Your task to perform on an android device: What's the time in San Francisco? Image 0: 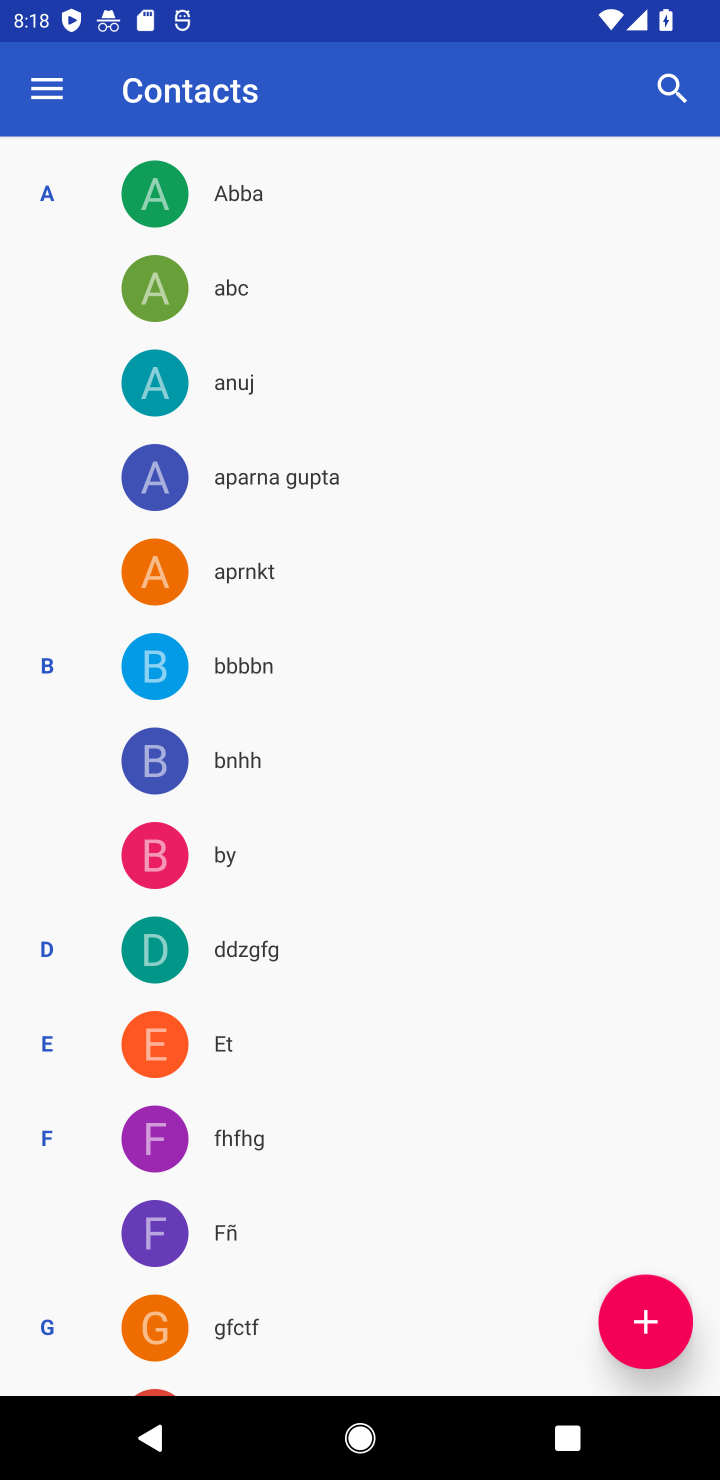
Step 0: press home button
Your task to perform on an android device: What's the time in San Francisco? Image 1: 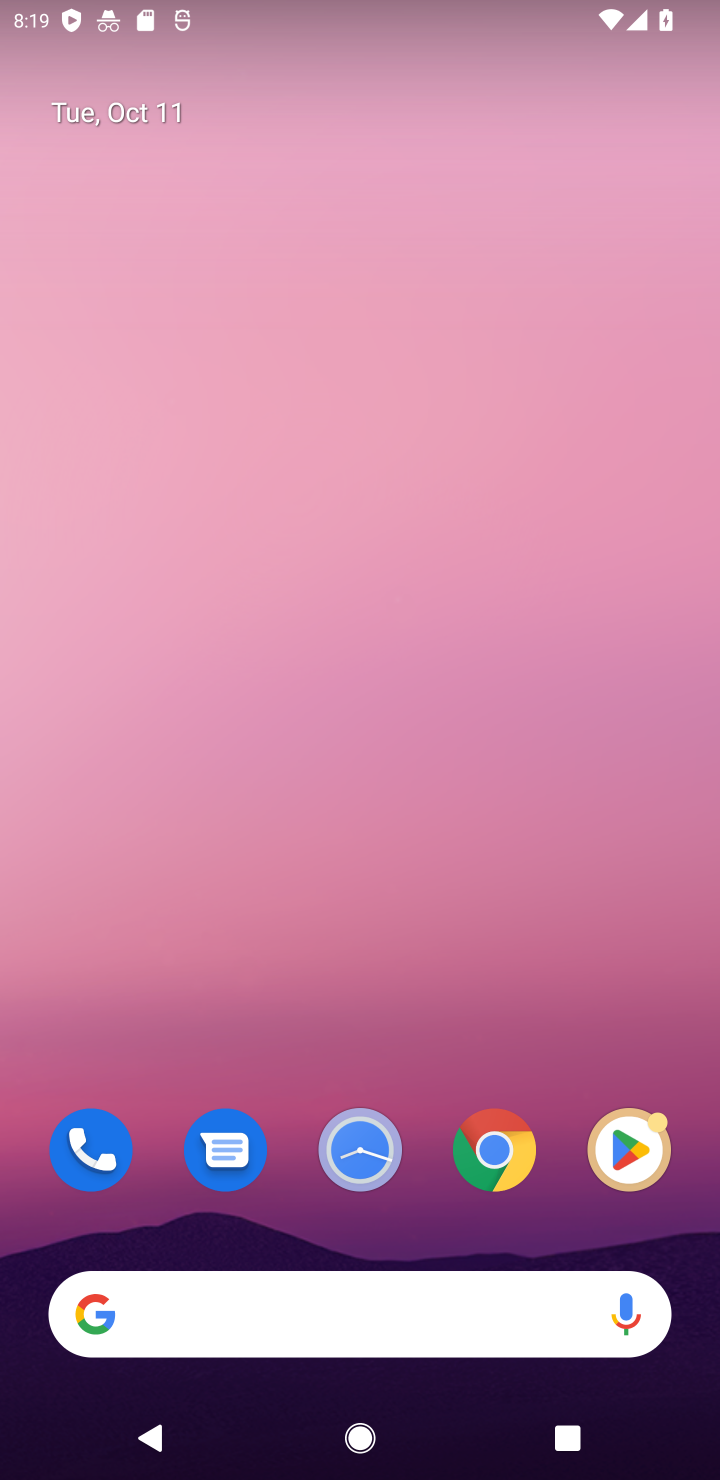
Step 1: click (491, 1166)
Your task to perform on an android device: What's the time in San Francisco? Image 2: 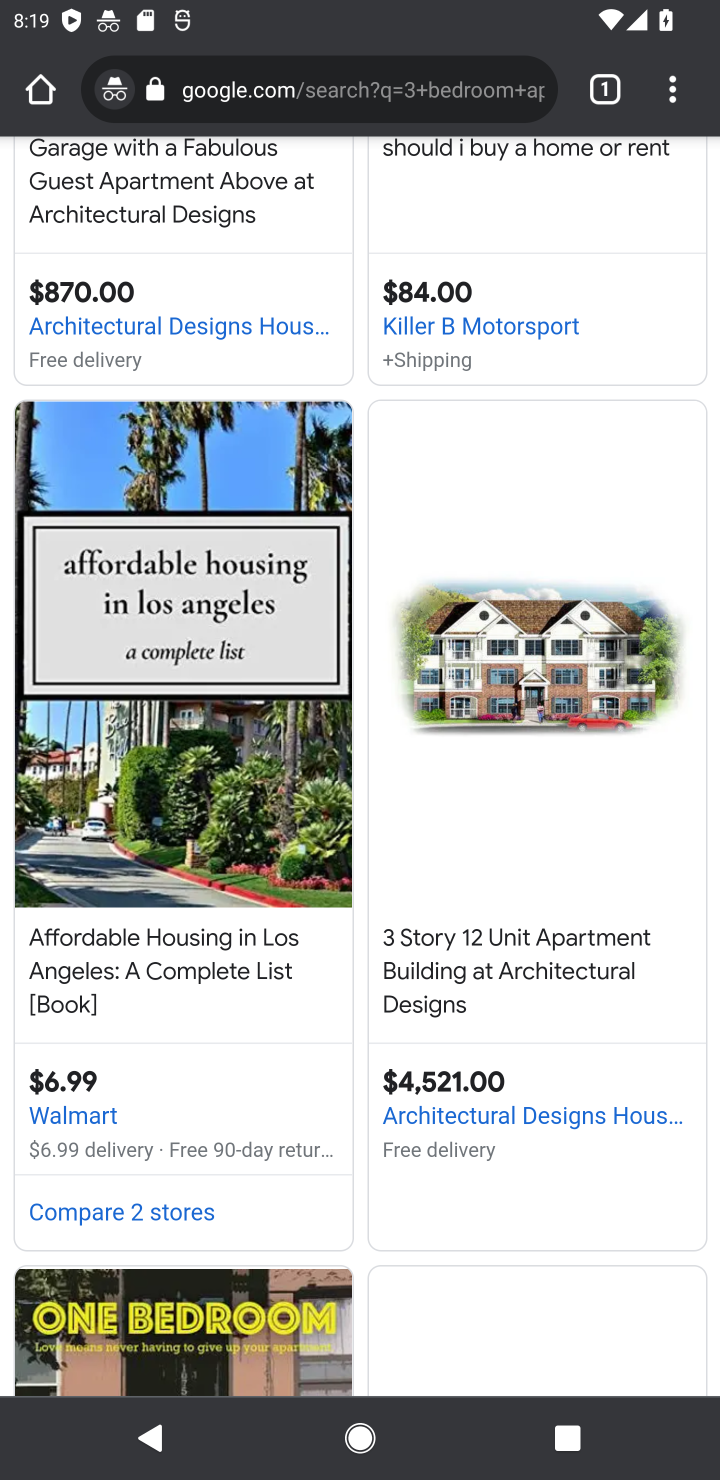
Step 2: click (232, 107)
Your task to perform on an android device: What's the time in San Francisco? Image 3: 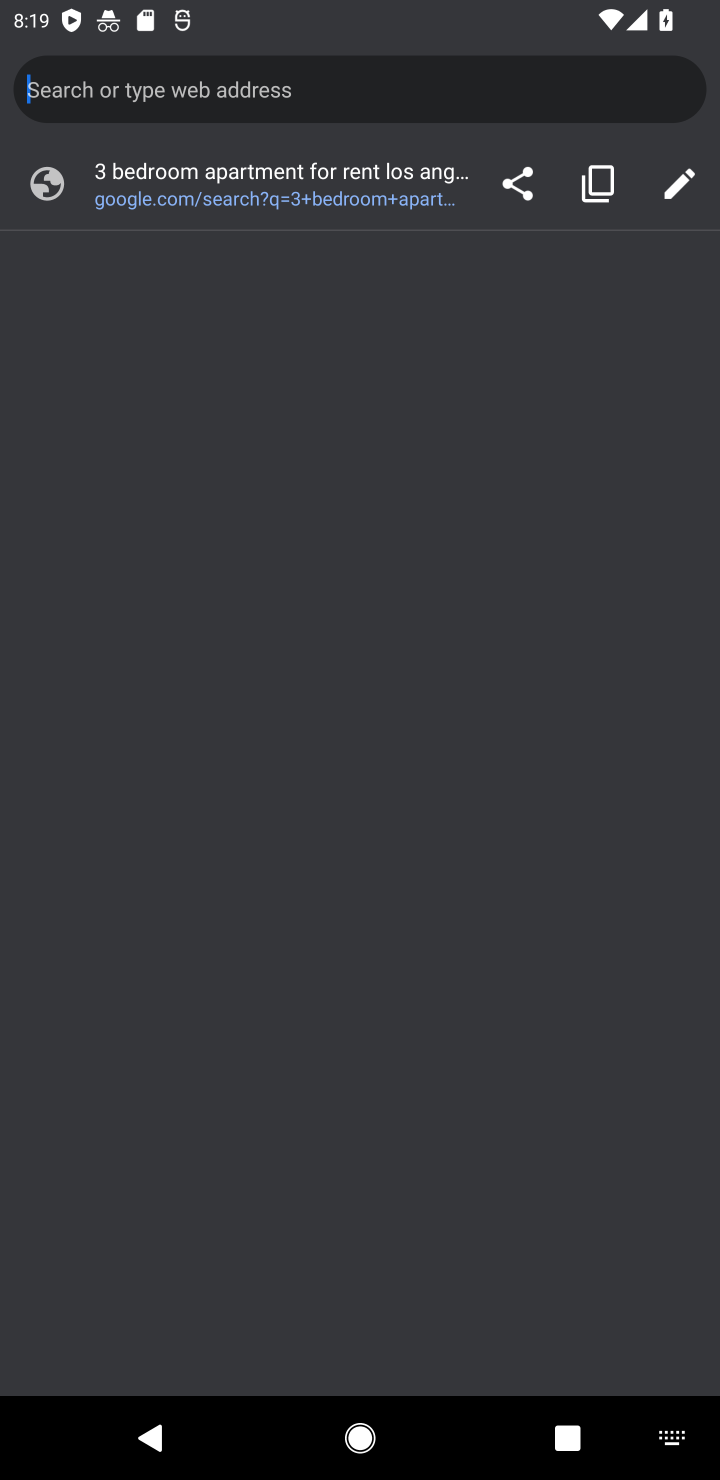
Step 3: type "time in san francisco"
Your task to perform on an android device: What's the time in San Francisco? Image 4: 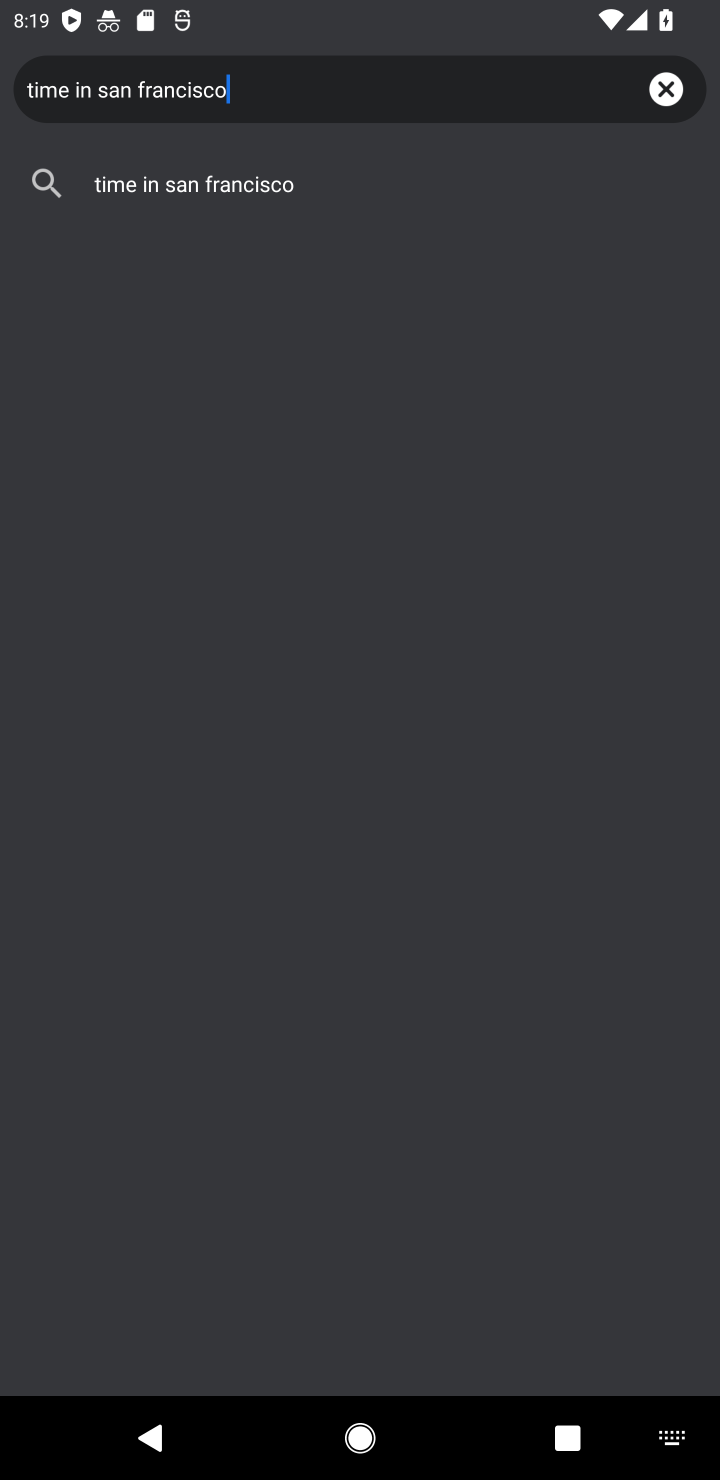
Step 4: click (213, 190)
Your task to perform on an android device: What's the time in San Francisco? Image 5: 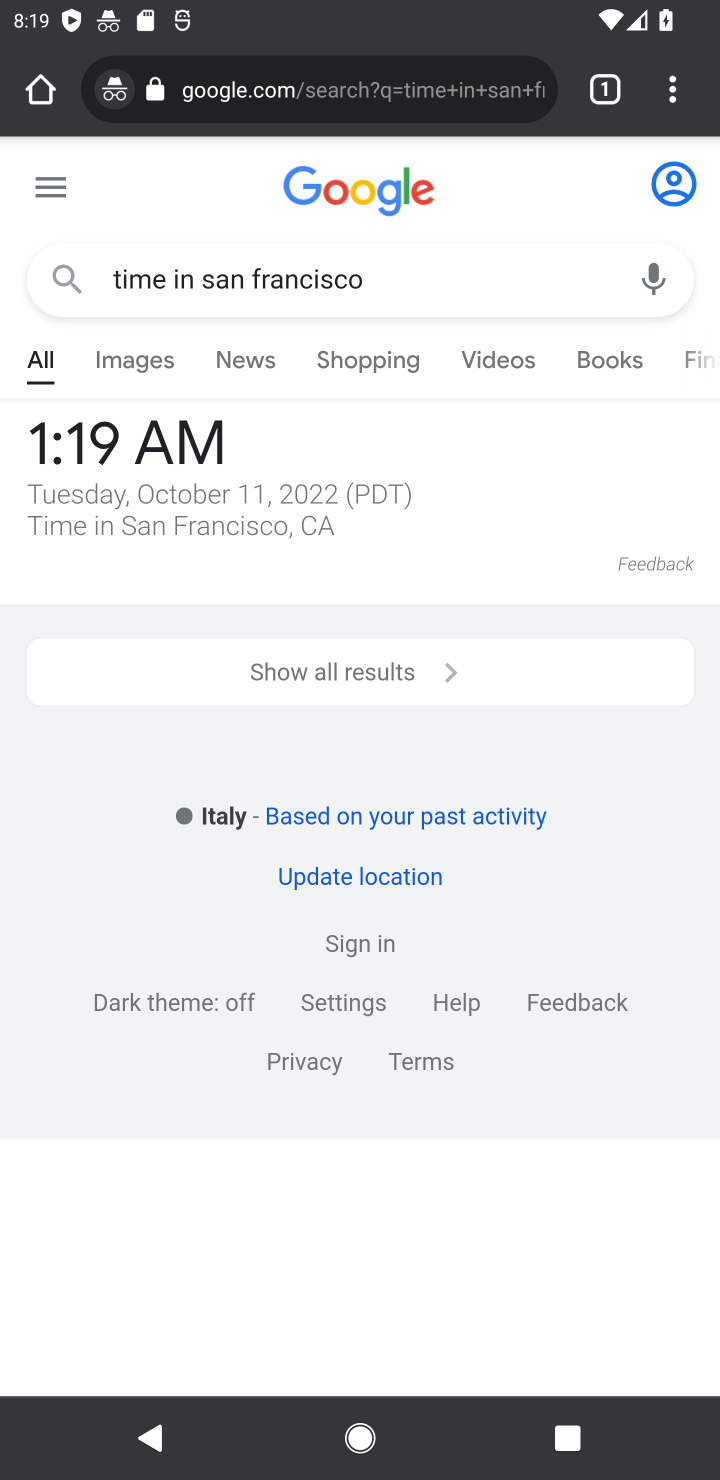
Step 5: task complete